Your task to perform on an android device: remove spam from my inbox in the gmail app Image 0: 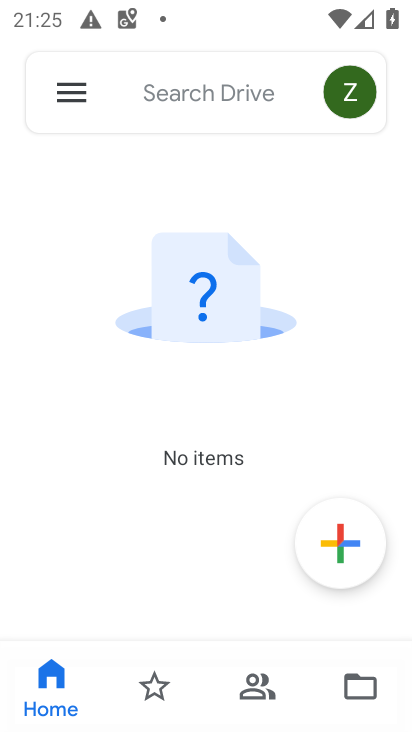
Step 0: press back button
Your task to perform on an android device: remove spam from my inbox in the gmail app Image 1: 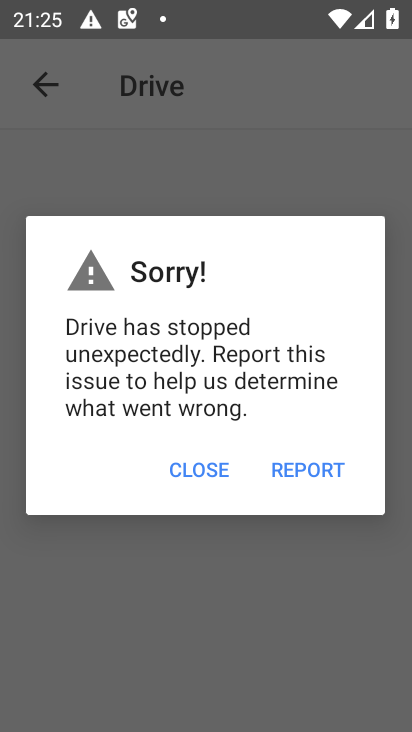
Step 1: press back button
Your task to perform on an android device: remove spam from my inbox in the gmail app Image 2: 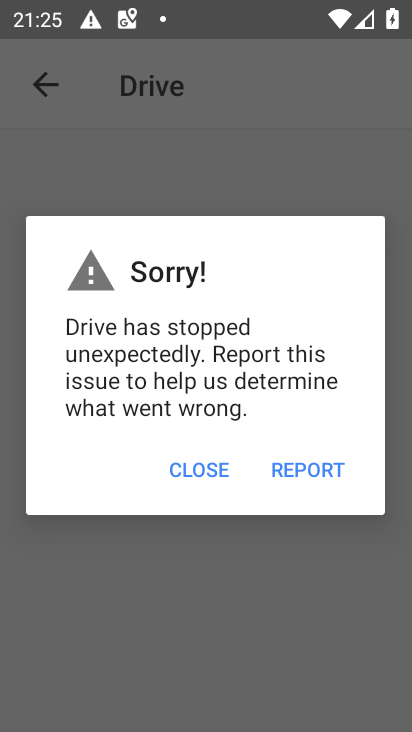
Step 2: press home button
Your task to perform on an android device: remove spam from my inbox in the gmail app Image 3: 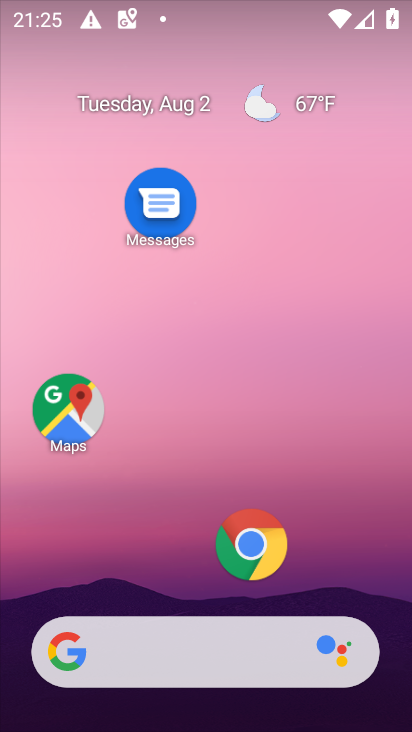
Step 3: drag from (173, 582) to (172, 172)
Your task to perform on an android device: remove spam from my inbox in the gmail app Image 4: 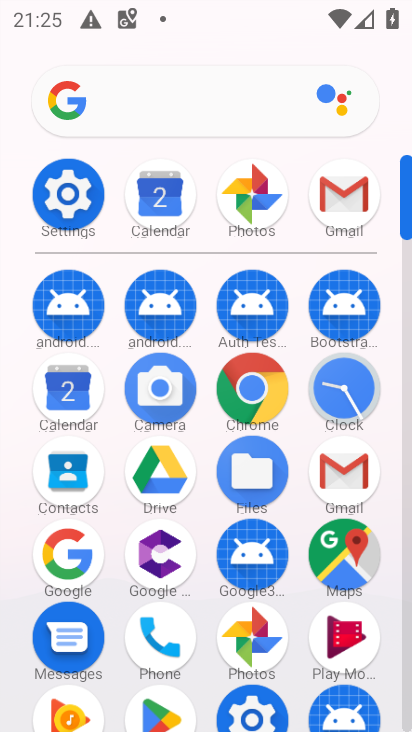
Step 4: click (332, 204)
Your task to perform on an android device: remove spam from my inbox in the gmail app Image 5: 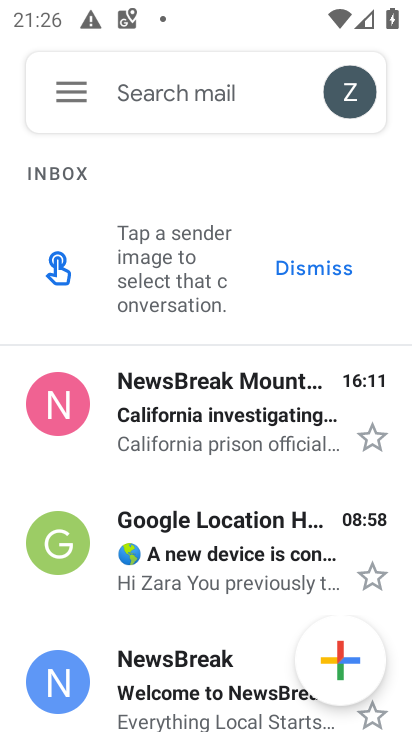
Step 5: click (69, 109)
Your task to perform on an android device: remove spam from my inbox in the gmail app Image 6: 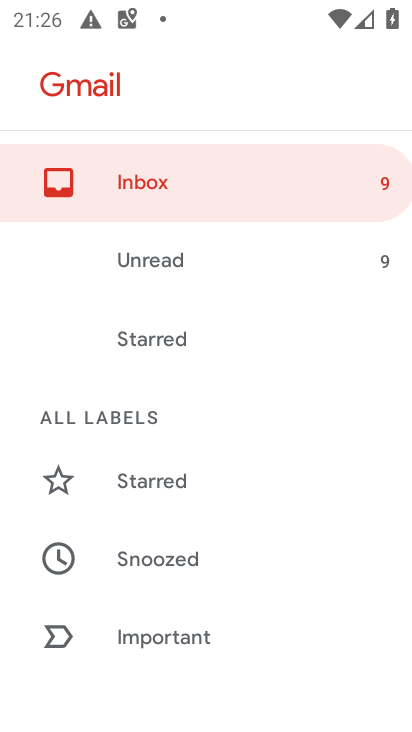
Step 6: drag from (154, 616) to (189, 245)
Your task to perform on an android device: remove spam from my inbox in the gmail app Image 7: 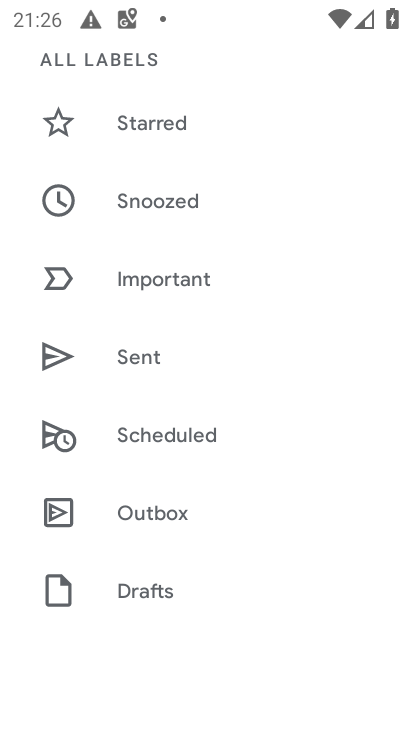
Step 7: drag from (169, 618) to (199, 267)
Your task to perform on an android device: remove spam from my inbox in the gmail app Image 8: 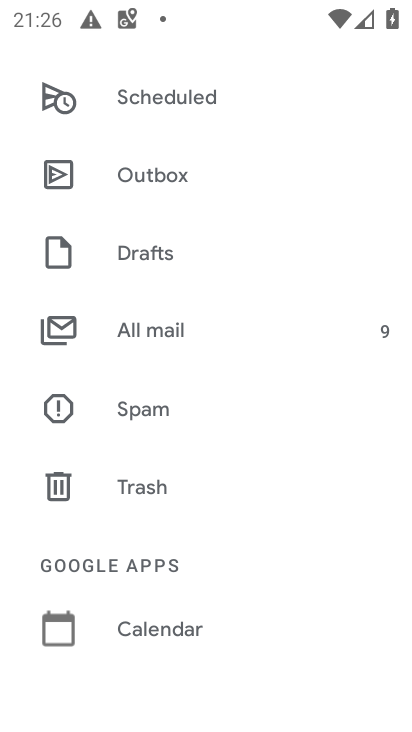
Step 8: click (173, 403)
Your task to perform on an android device: remove spam from my inbox in the gmail app Image 9: 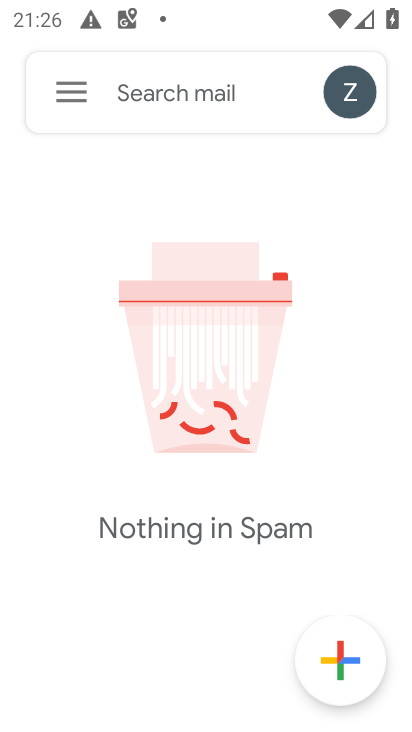
Step 9: task complete